Your task to perform on an android device: Open maps Image 0: 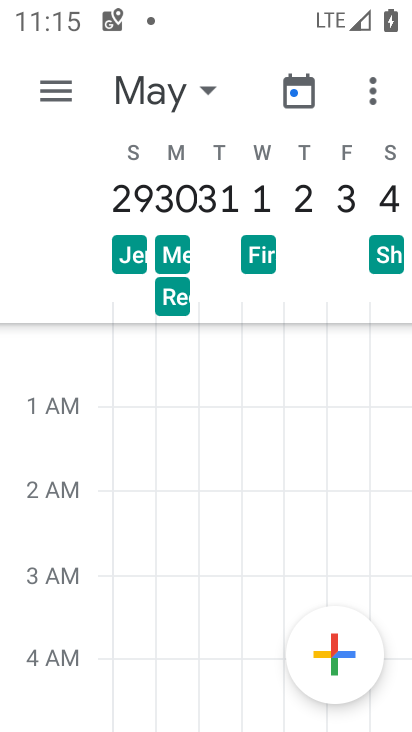
Step 0: press home button
Your task to perform on an android device: Open maps Image 1: 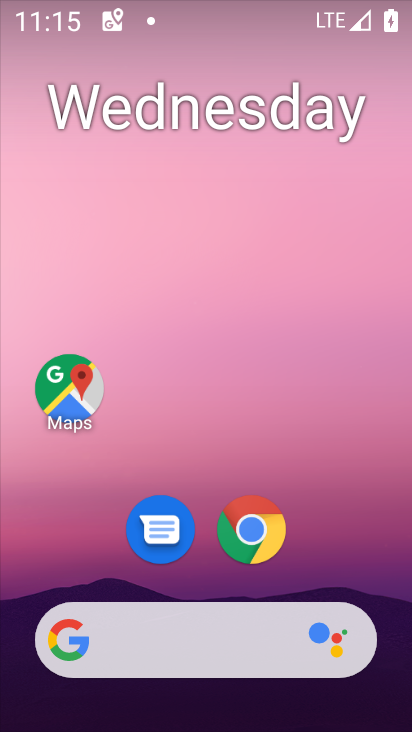
Step 1: click (71, 388)
Your task to perform on an android device: Open maps Image 2: 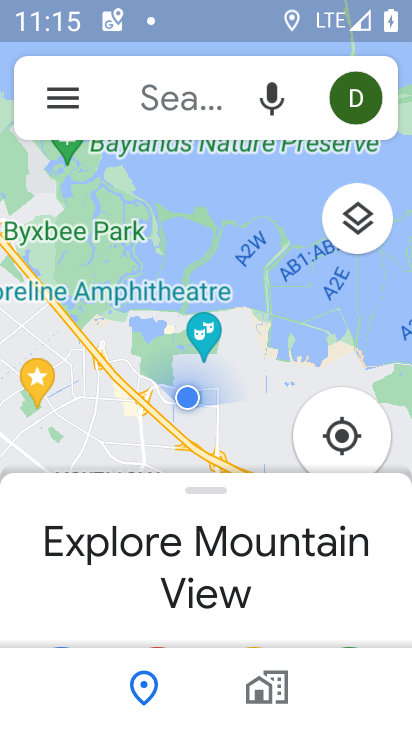
Step 2: task complete